Your task to perform on an android device: open app "Indeed Job Search" Image 0: 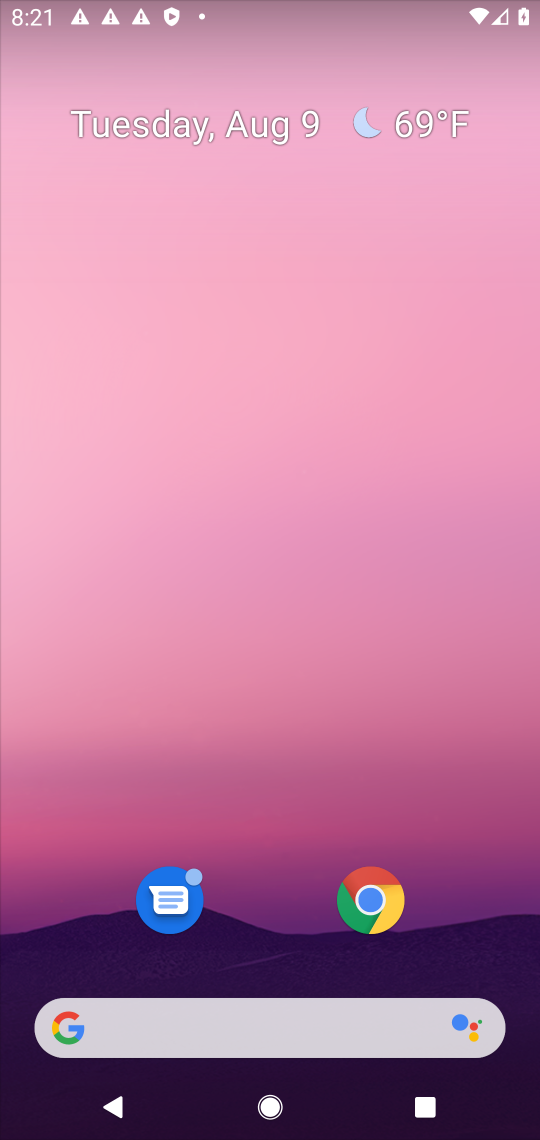
Step 0: drag from (344, 1061) to (220, 197)
Your task to perform on an android device: open app "Indeed Job Search" Image 1: 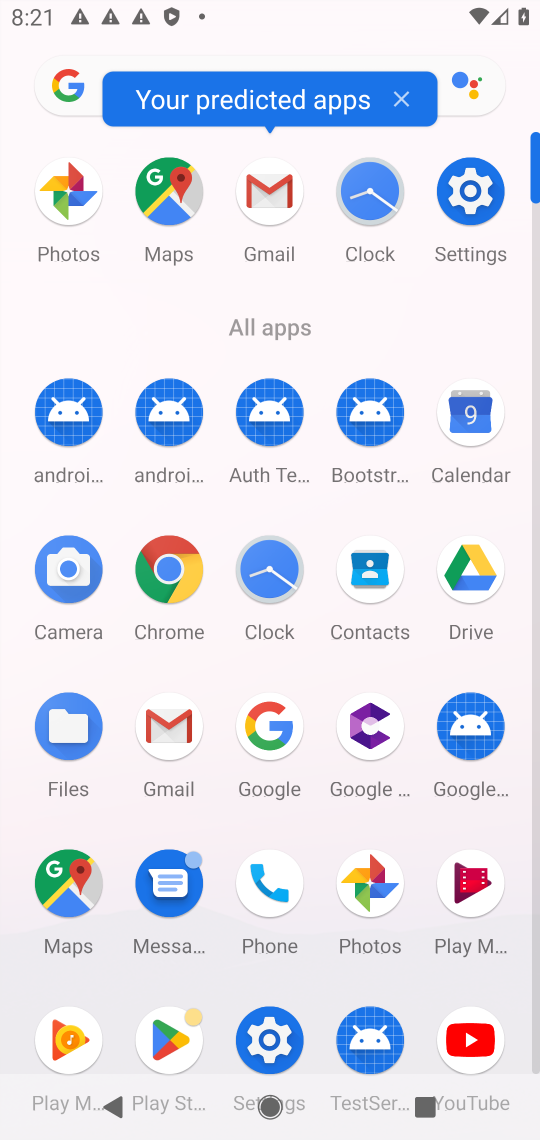
Step 1: drag from (174, 1045) to (384, 977)
Your task to perform on an android device: open app "Indeed Job Search" Image 2: 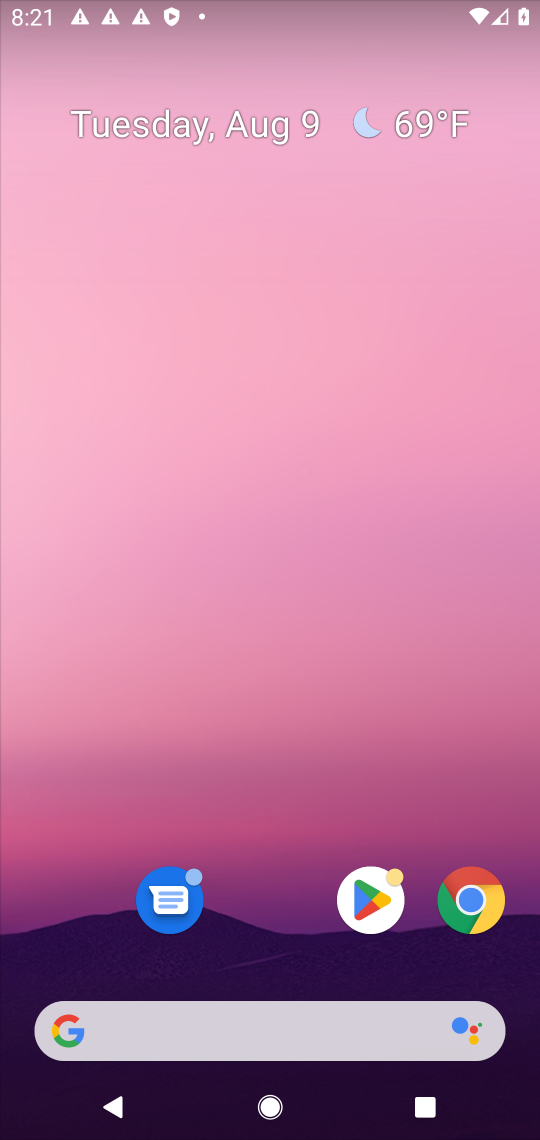
Step 2: click (363, 926)
Your task to perform on an android device: open app "Indeed Job Search" Image 3: 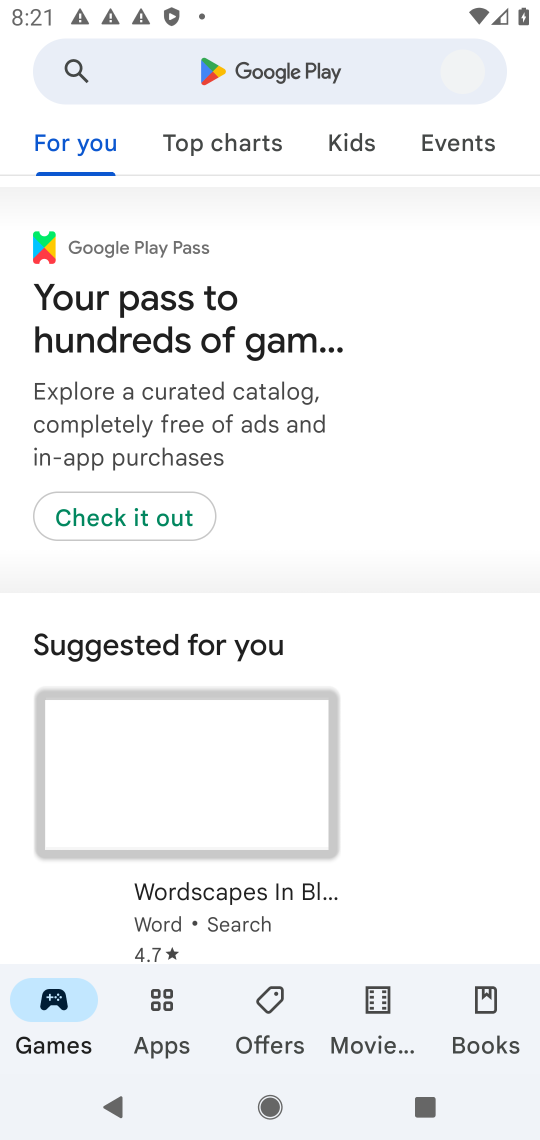
Step 3: click (206, 87)
Your task to perform on an android device: open app "Indeed Job Search" Image 4: 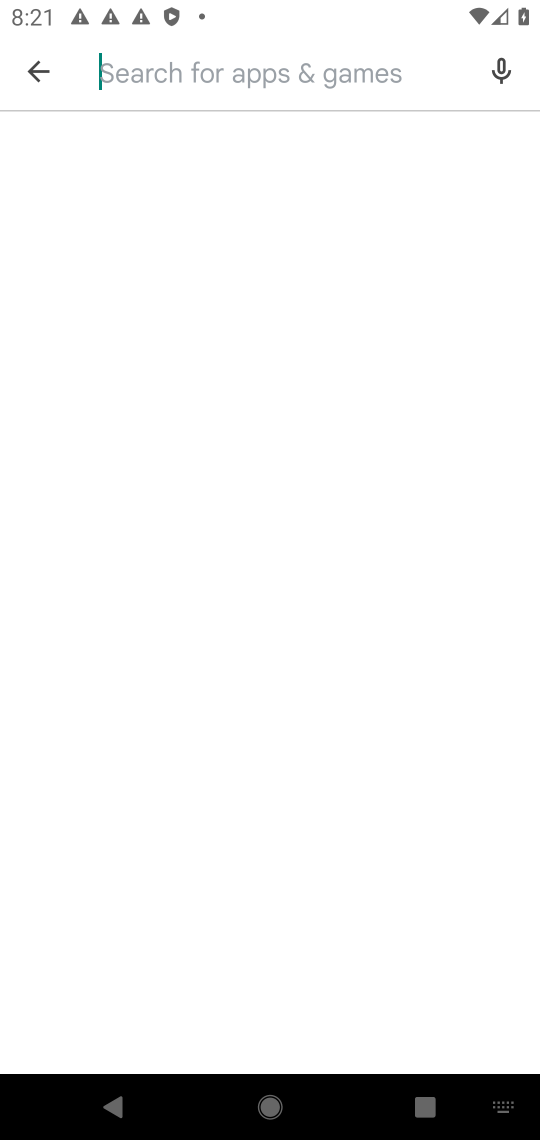
Step 4: type "indeed"
Your task to perform on an android device: open app "Indeed Job Search" Image 5: 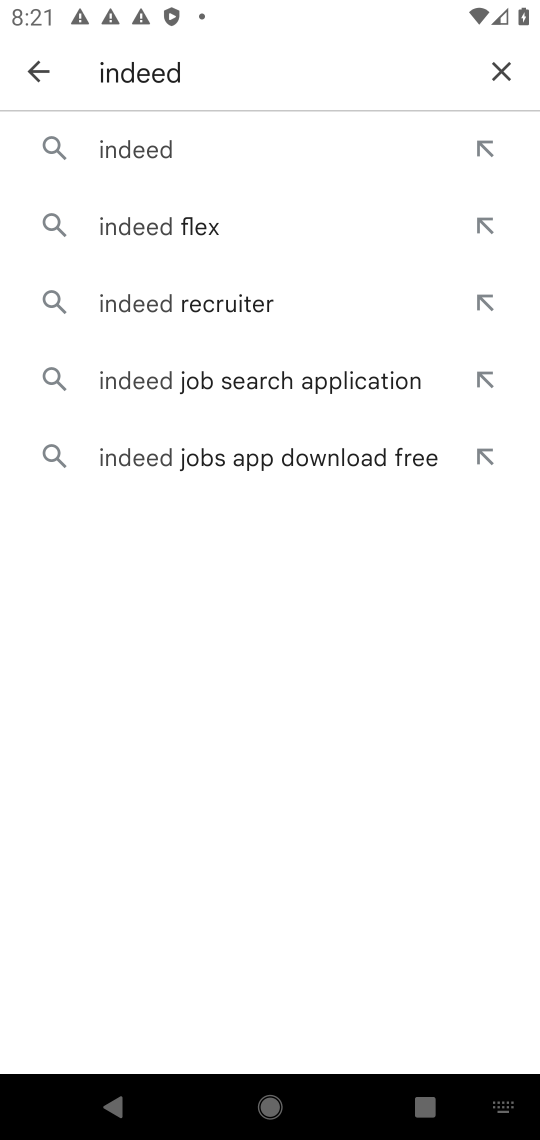
Step 5: click (167, 171)
Your task to perform on an android device: open app "Indeed Job Search" Image 6: 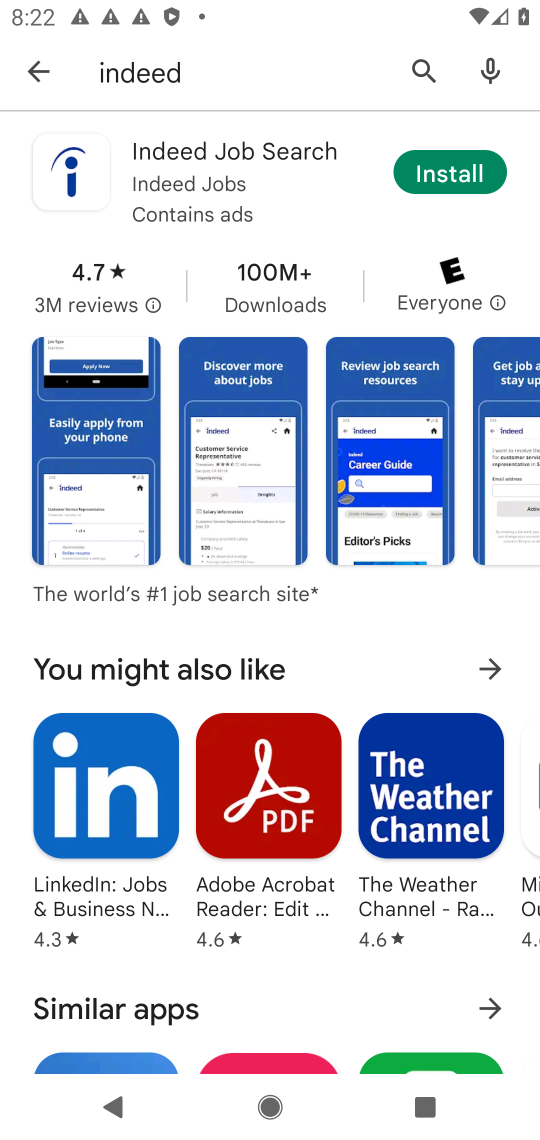
Step 6: task complete